Your task to perform on an android device: Open calendar and show me the third week of next month Image 0: 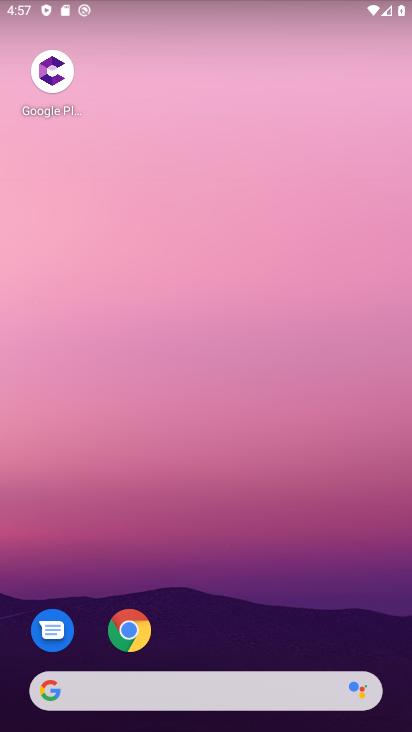
Step 0: drag from (264, 676) to (311, 52)
Your task to perform on an android device: Open calendar and show me the third week of next month Image 1: 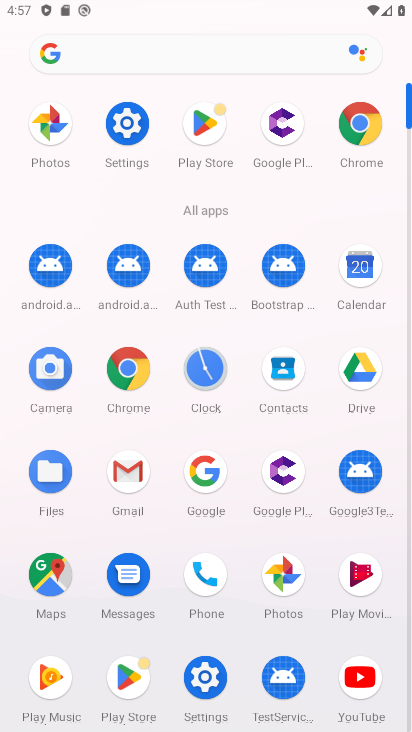
Step 1: click (355, 269)
Your task to perform on an android device: Open calendar and show me the third week of next month Image 2: 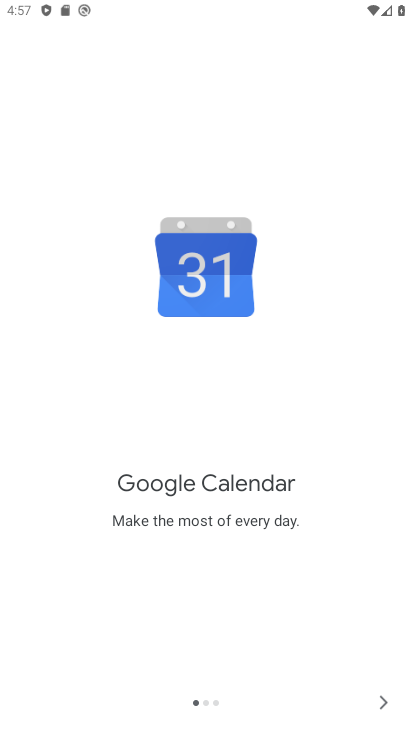
Step 2: click (384, 698)
Your task to perform on an android device: Open calendar and show me the third week of next month Image 3: 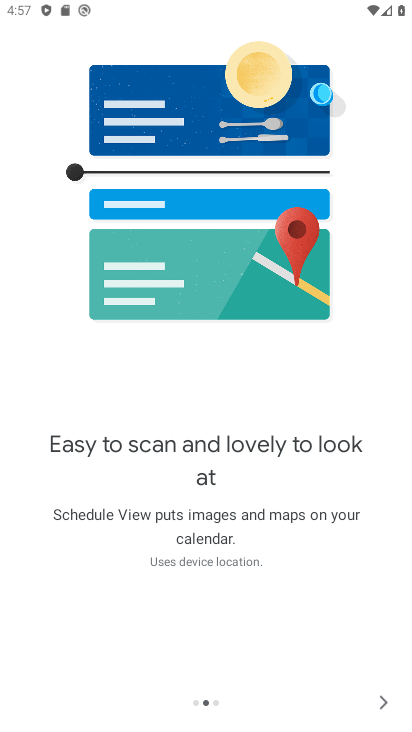
Step 3: click (384, 698)
Your task to perform on an android device: Open calendar and show me the third week of next month Image 4: 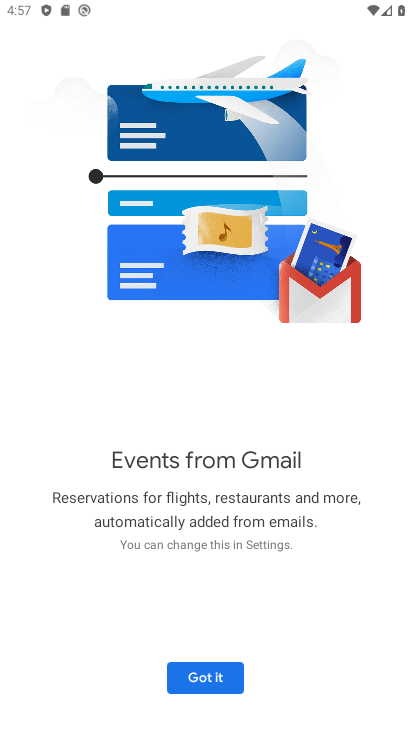
Step 4: click (223, 678)
Your task to perform on an android device: Open calendar and show me the third week of next month Image 5: 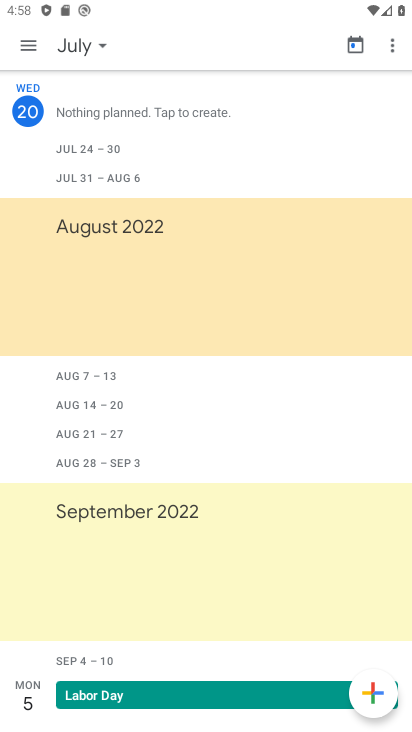
Step 5: click (105, 40)
Your task to perform on an android device: Open calendar and show me the third week of next month Image 6: 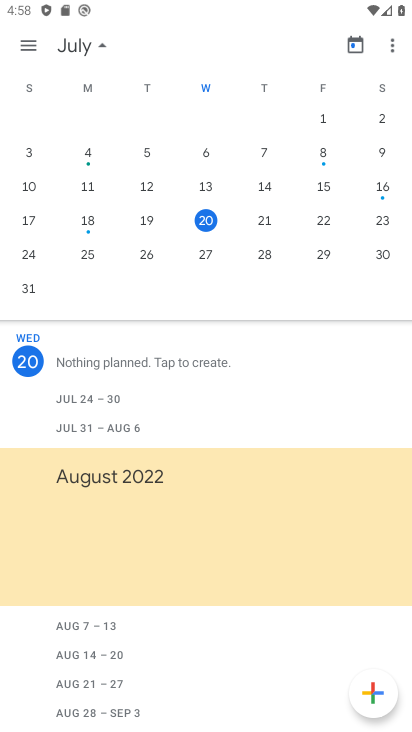
Step 6: drag from (349, 234) to (21, 174)
Your task to perform on an android device: Open calendar and show me the third week of next month Image 7: 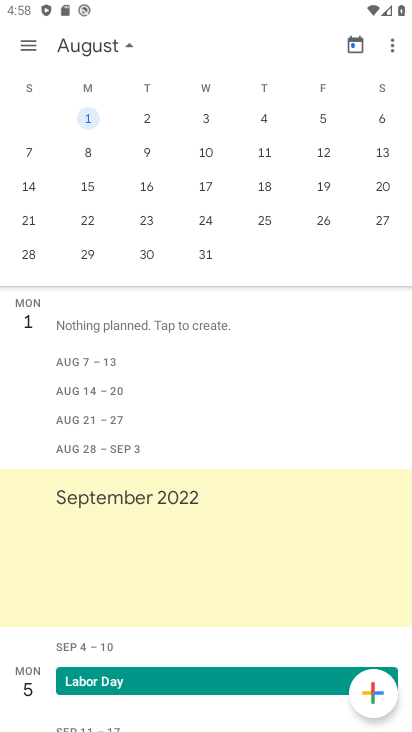
Step 7: click (206, 149)
Your task to perform on an android device: Open calendar and show me the third week of next month Image 8: 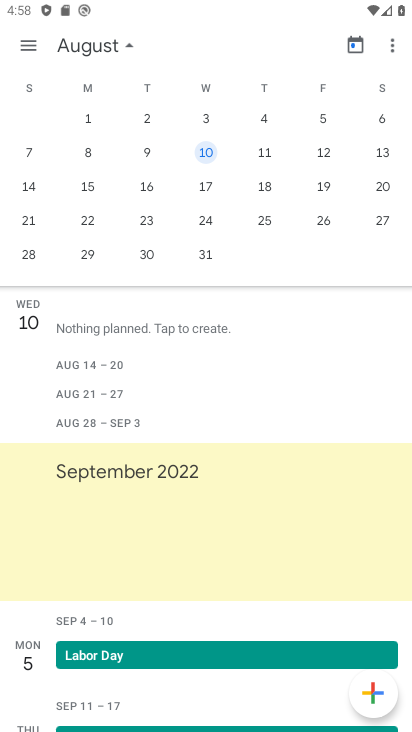
Step 8: click (27, 41)
Your task to perform on an android device: Open calendar and show me the third week of next month Image 9: 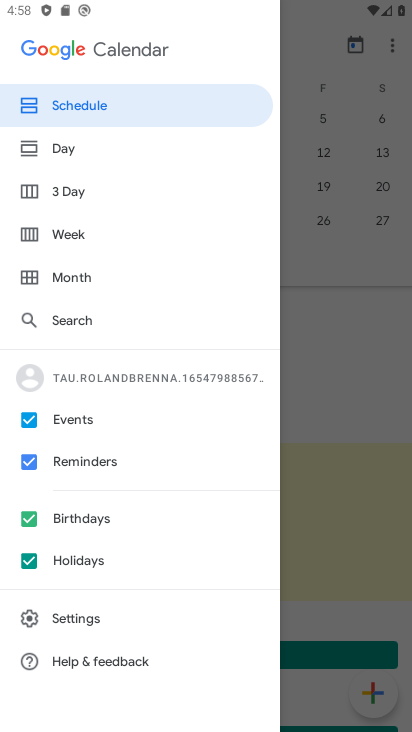
Step 9: click (89, 233)
Your task to perform on an android device: Open calendar and show me the third week of next month Image 10: 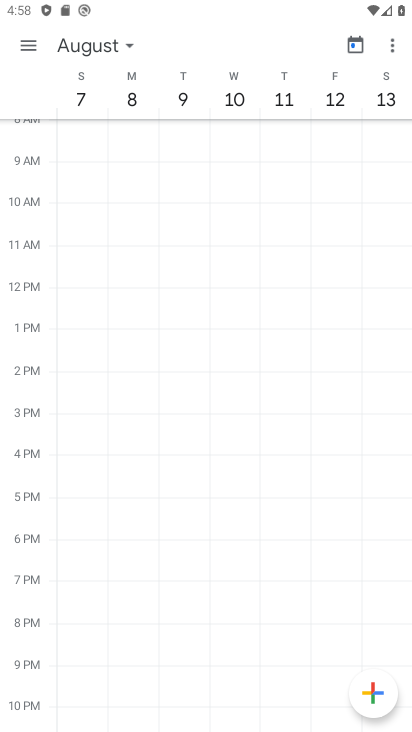
Step 10: task complete